Your task to perform on an android device: Open Chrome and go to settings Image 0: 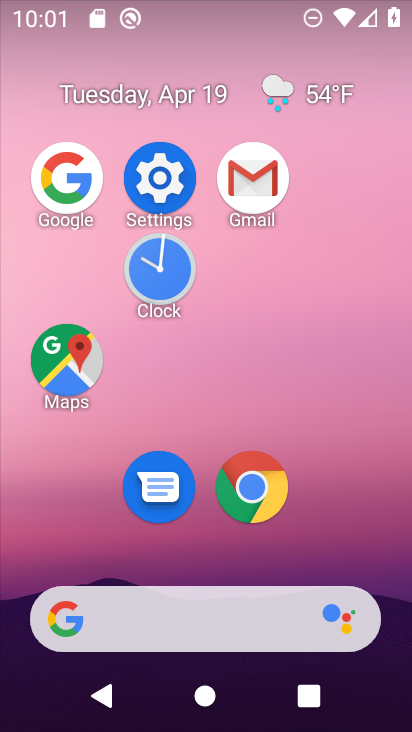
Step 0: click (247, 469)
Your task to perform on an android device: Open Chrome and go to settings Image 1: 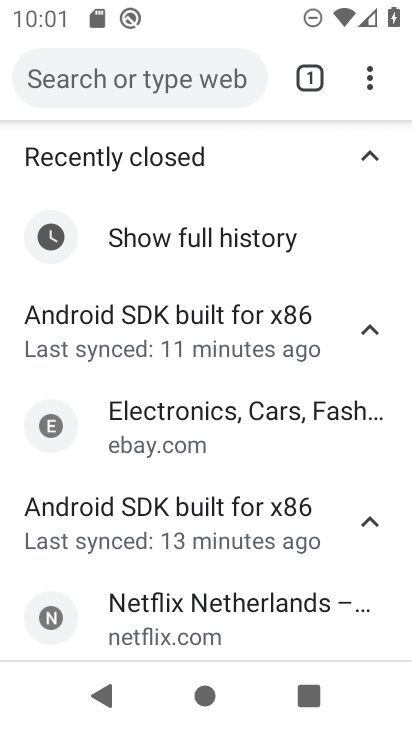
Step 1: click (374, 78)
Your task to perform on an android device: Open Chrome and go to settings Image 2: 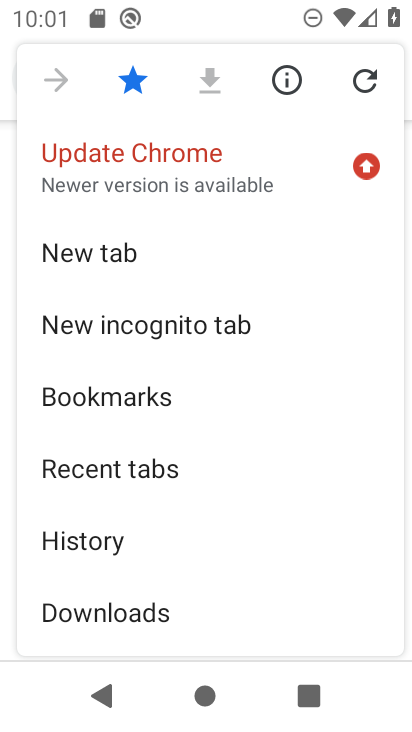
Step 2: drag from (150, 547) to (180, 131)
Your task to perform on an android device: Open Chrome and go to settings Image 3: 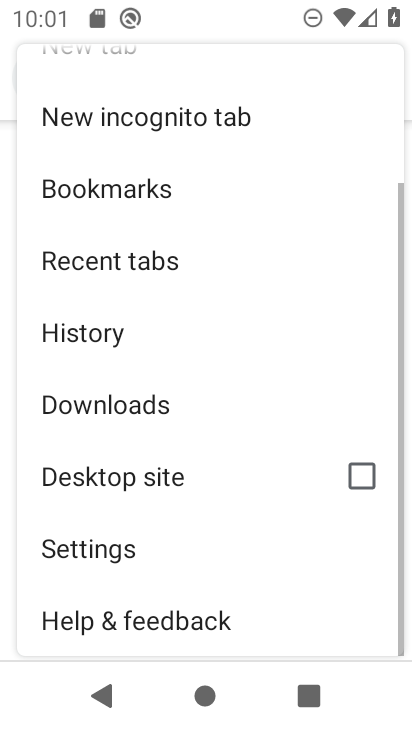
Step 3: click (156, 561)
Your task to perform on an android device: Open Chrome and go to settings Image 4: 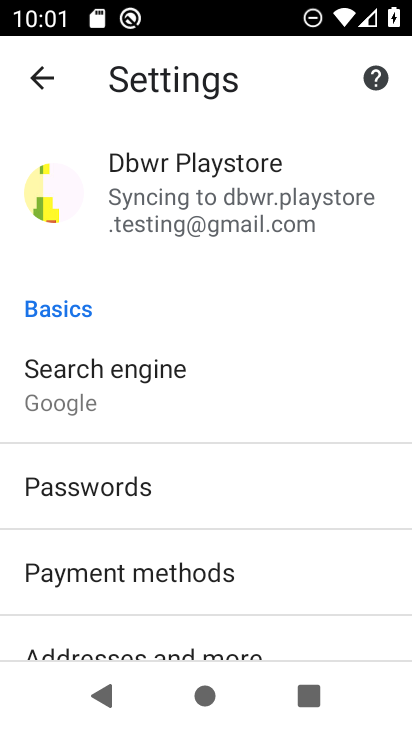
Step 4: task complete